Your task to perform on an android device: Open Chrome and go to the settings page Image 0: 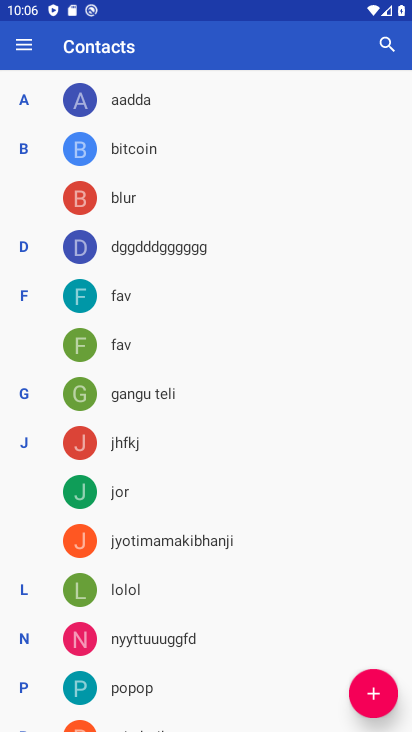
Step 0: press home button
Your task to perform on an android device: Open Chrome and go to the settings page Image 1: 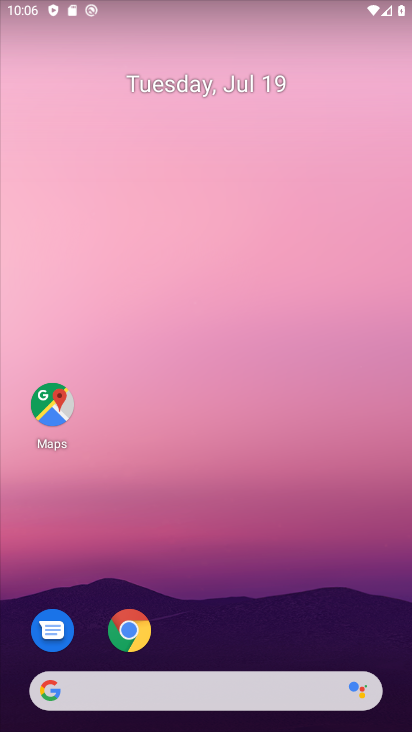
Step 1: drag from (259, 647) to (208, 33)
Your task to perform on an android device: Open Chrome and go to the settings page Image 2: 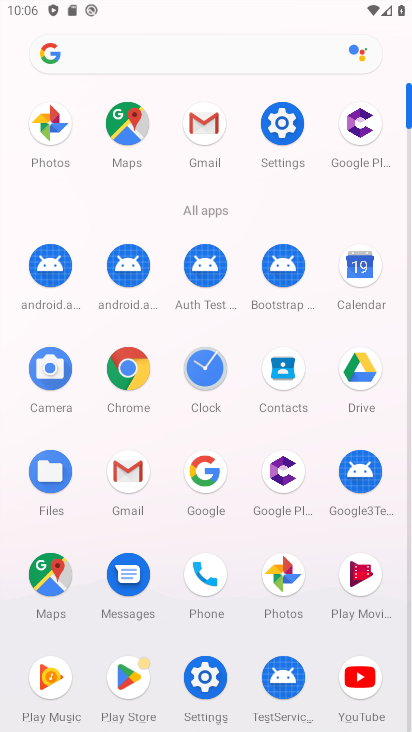
Step 2: click (121, 368)
Your task to perform on an android device: Open Chrome and go to the settings page Image 3: 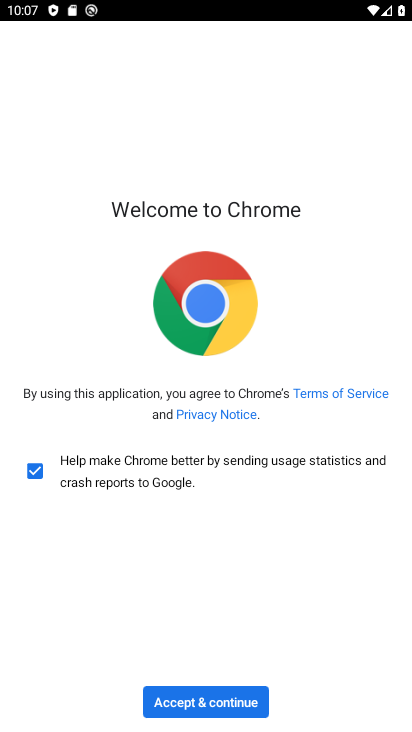
Step 3: click (204, 713)
Your task to perform on an android device: Open Chrome and go to the settings page Image 4: 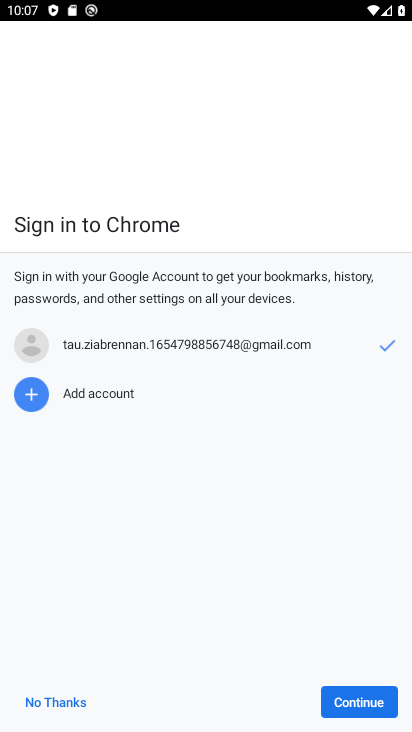
Step 4: click (342, 701)
Your task to perform on an android device: Open Chrome and go to the settings page Image 5: 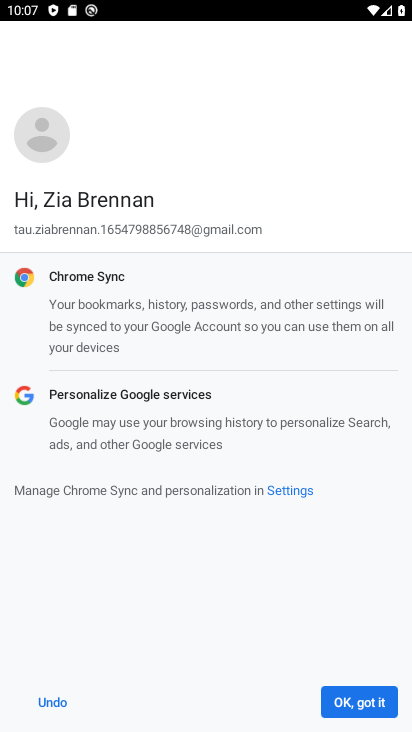
Step 5: click (342, 701)
Your task to perform on an android device: Open Chrome and go to the settings page Image 6: 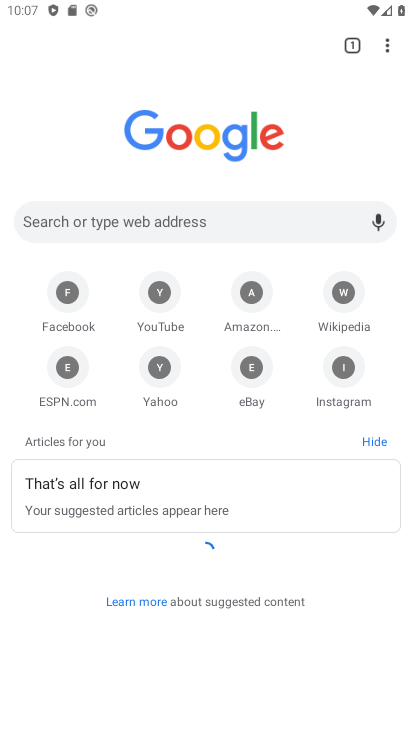
Step 6: task complete